Your task to perform on an android device: Go to eBay Image 0: 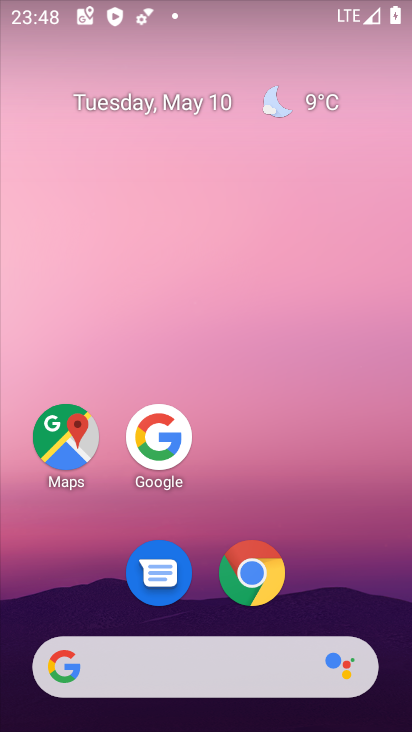
Step 0: drag from (154, 685) to (328, 134)
Your task to perform on an android device: Go to eBay Image 1: 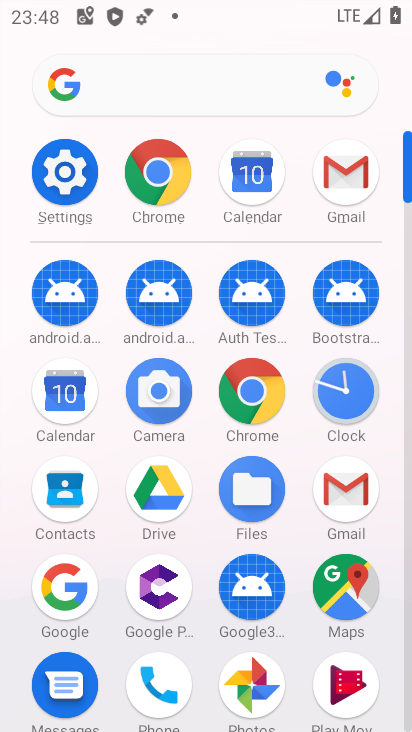
Step 1: click (163, 180)
Your task to perform on an android device: Go to eBay Image 2: 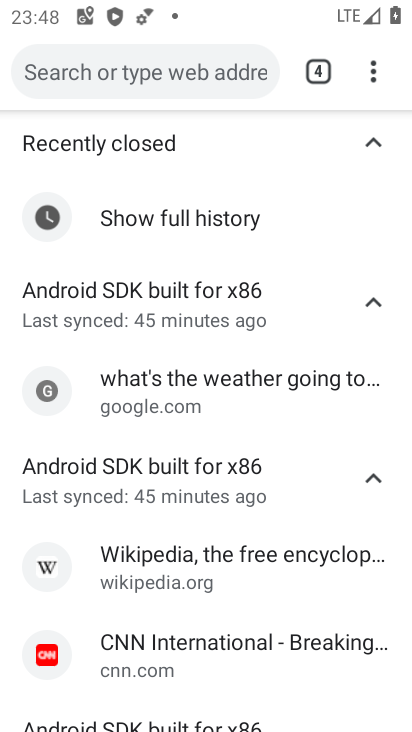
Step 2: drag from (373, 77) to (261, 147)
Your task to perform on an android device: Go to eBay Image 3: 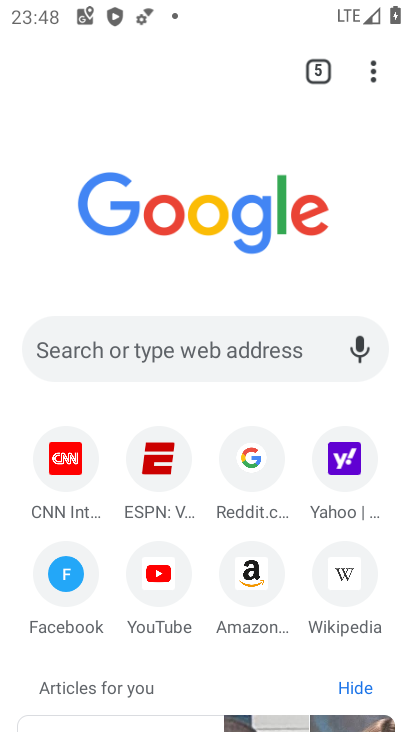
Step 3: drag from (232, 651) to (233, 528)
Your task to perform on an android device: Go to eBay Image 4: 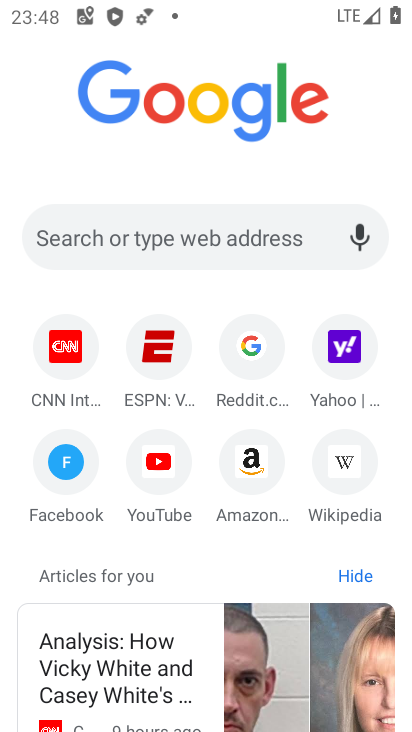
Step 4: click (175, 241)
Your task to perform on an android device: Go to eBay Image 5: 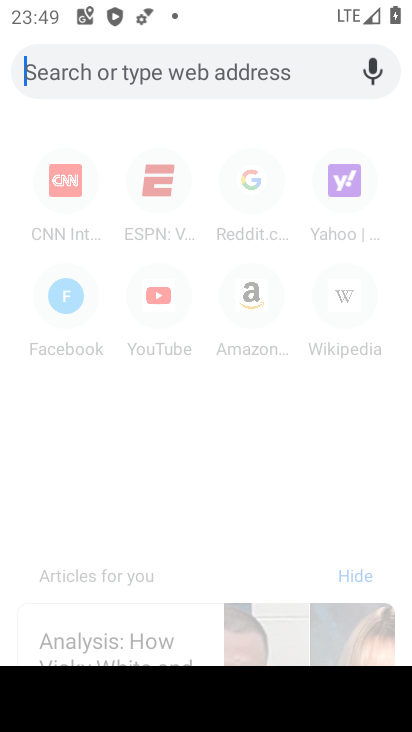
Step 5: type "ebay"
Your task to perform on an android device: Go to eBay Image 6: 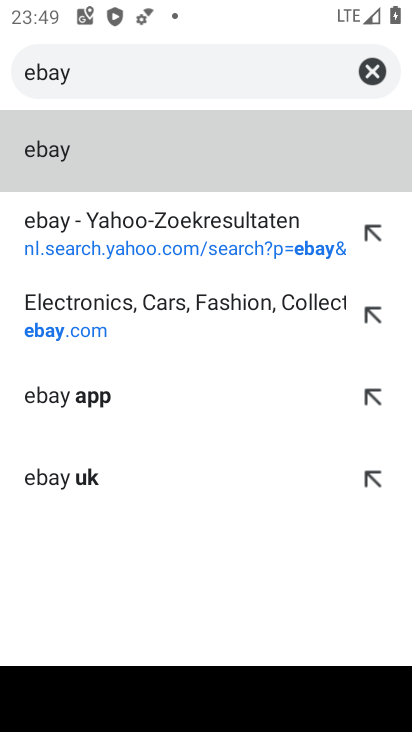
Step 6: click (46, 158)
Your task to perform on an android device: Go to eBay Image 7: 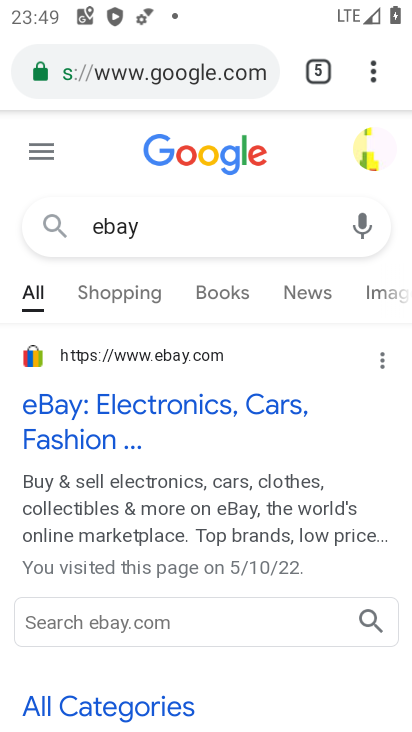
Step 7: click (187, 404)
Your task to perform on an android device: Go to eBay Image 8: 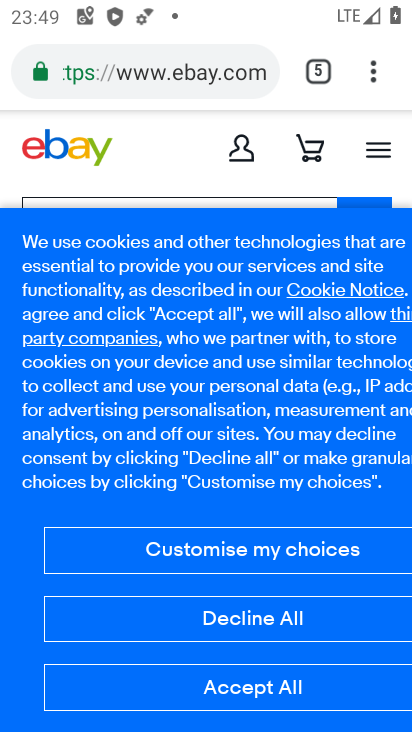
Step 8: task complete